Your task to perform on an android device: Go to Google maps Image 0: 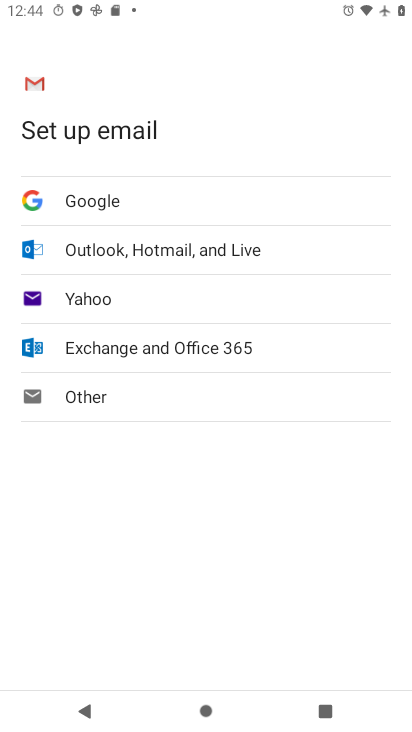
Step 0: press home button
Your task to perform on an android device: Go to Google maps Image 1: 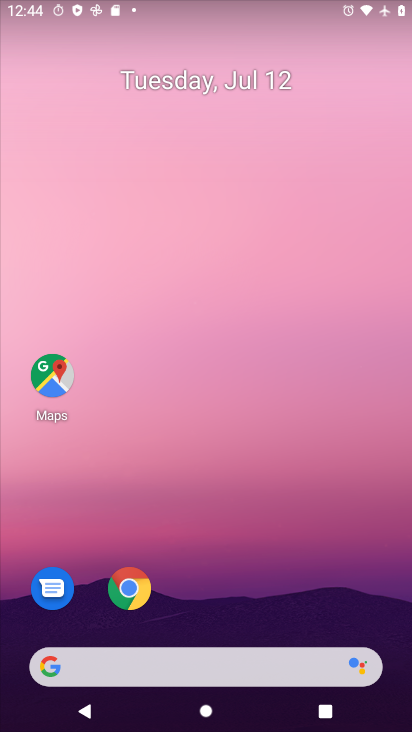
Step 1: click (64, 373)
Your task to perform on an android device: Go to Google maps Image 2: 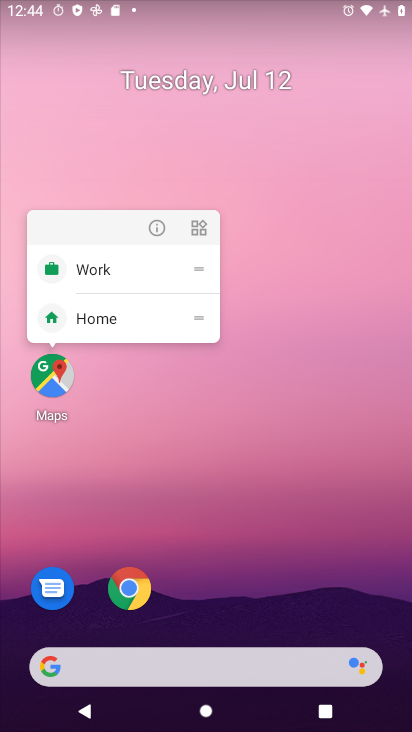
Step 2: click (55, 374)
Your task to perform on an android device: Go to Google maps Image 3: 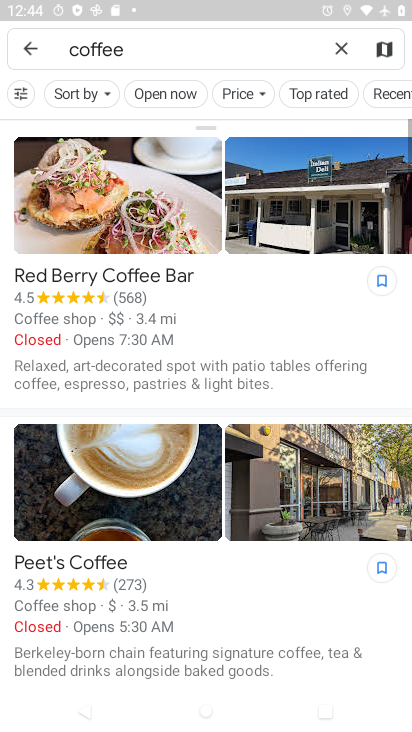
Step 3: click (32, 45)
Your task to perform on an android device: Go to Google maps Image 4: 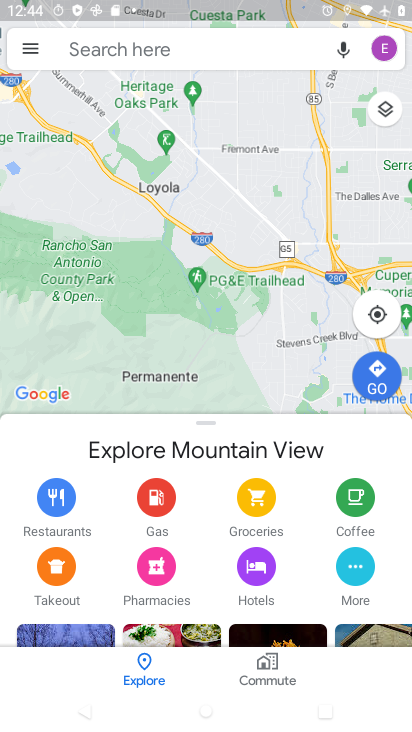
Step 4: task complete